Your task to perform on an android device: open app "YouTube Kids" Image 0: 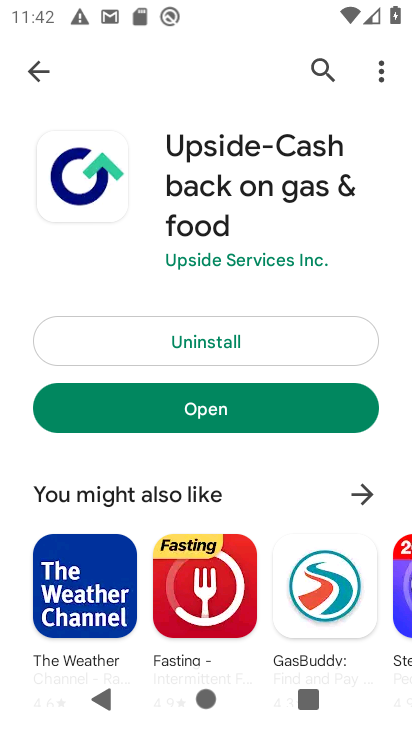
Step 0: drag from (213, 575) to (218, 315)
Your task to perform on an android device: open app "YouTube Kids" Image 1: 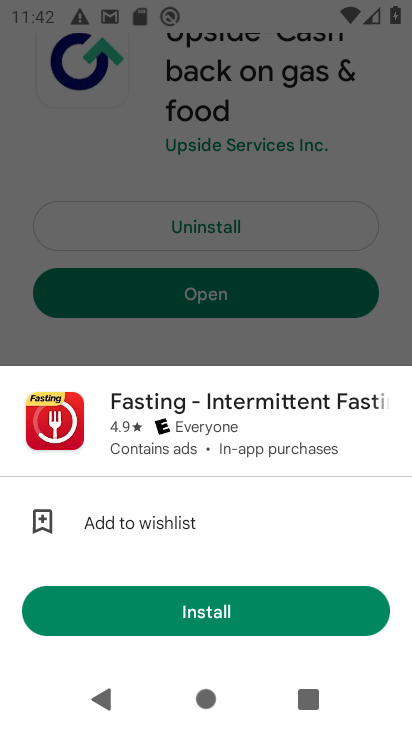
Step 1: press home button
Your task to perform on an android device: open app "YouTube Kids" Image 2: 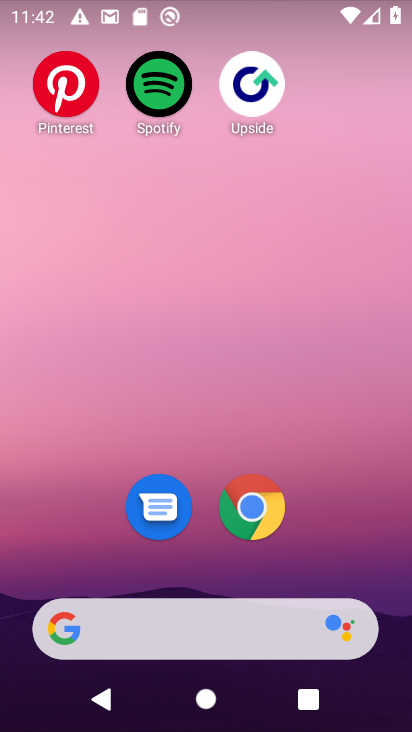
Step 2: drag from (143, 365) to (172, 19)
Your task to perform on an android device: open app "YouTube Kids" Image 3: 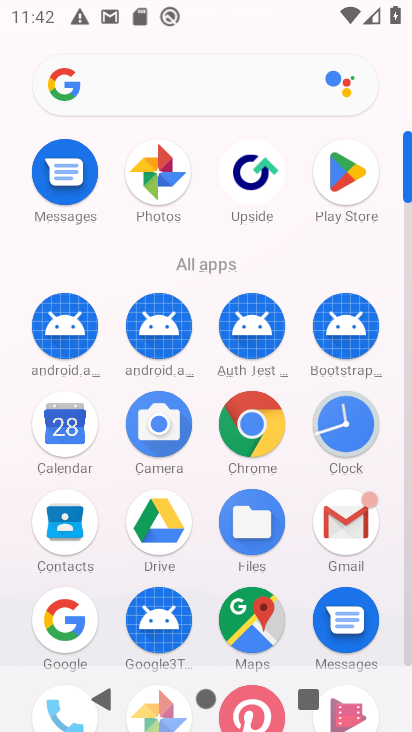
Step 3: click (354, 193)
Your task to perform on an android device: open app "YouTube Kids" Image 4: 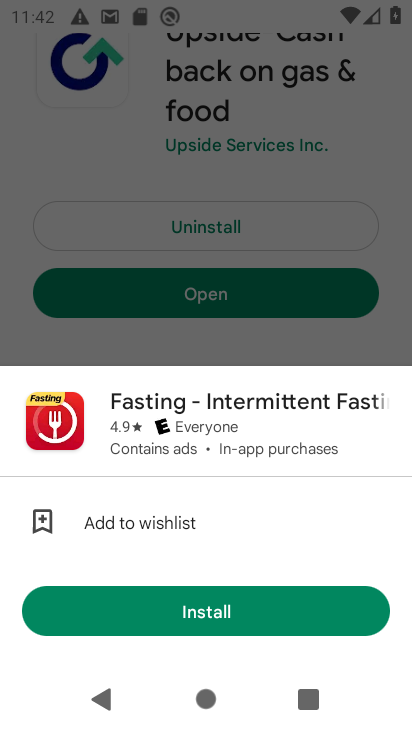
Step 4: press back button
Your task to perform on an android device: open app "YouTube Kids" Image 5: 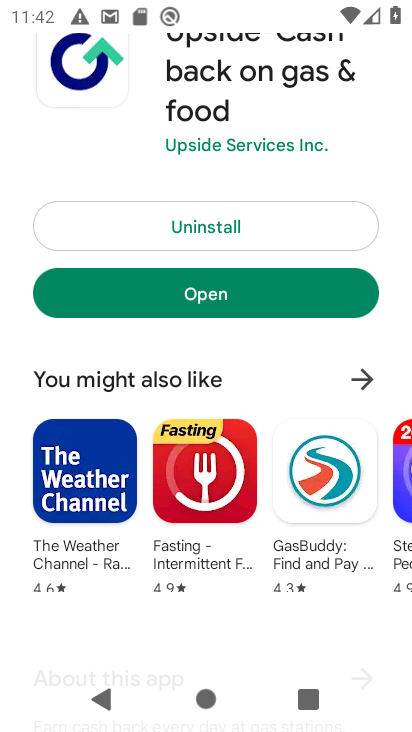
Step 5: drag from (151, 113) to (151, 526)
Your task to perform on an android device: open app "YouTube Kids" Image 6: 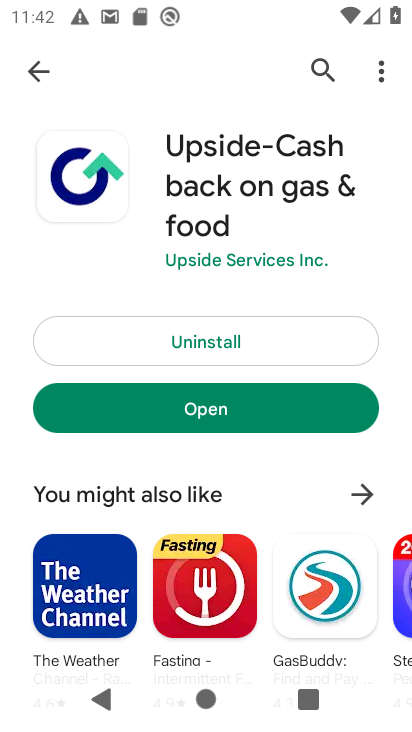
Step 6: click (31, 60)
Your task to perform on an android device: open app "YouTube Kids" Image 7: 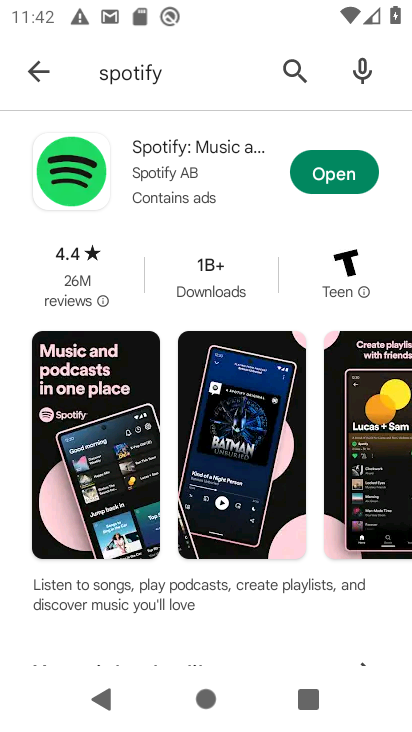
Step 7: click (156, 85)
Your task to perform on an android device: open app "YouTube Kids" Image 8: 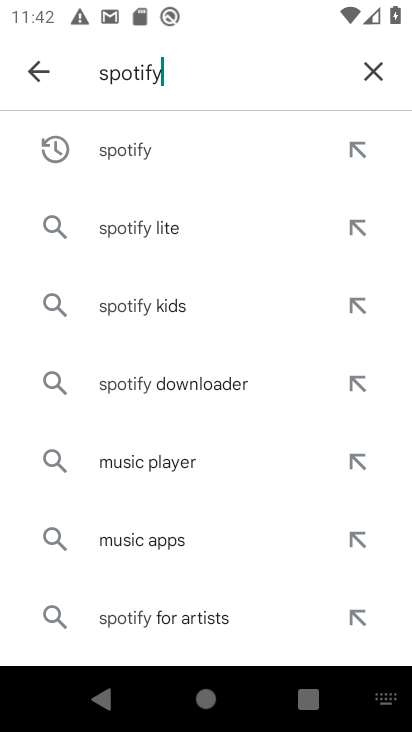
Step 8: click (366, 68)
Your task to perform on an android device: open app "YouTube Kids" Image 9: 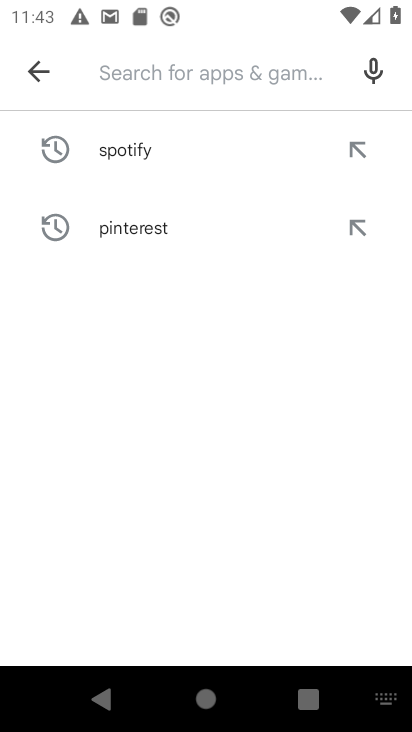
Step 9: type "Youtube kids"
Your task to perform on an android device: open app "YouTube Kids" Image 10: 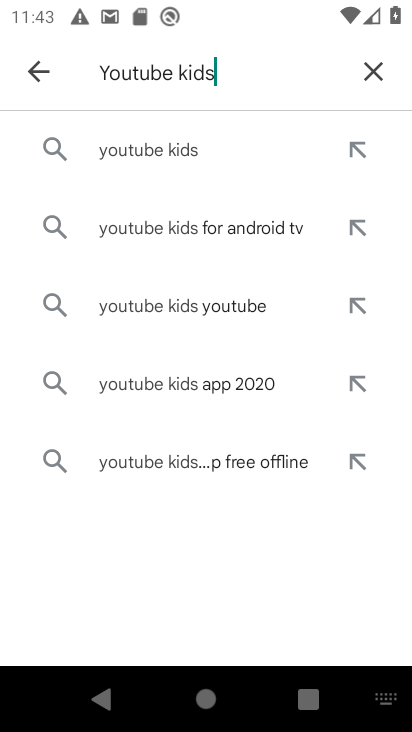
Step 10: click (74, 149)
Your task to perform on an android device: open app "YouTube Kids" Image 11: 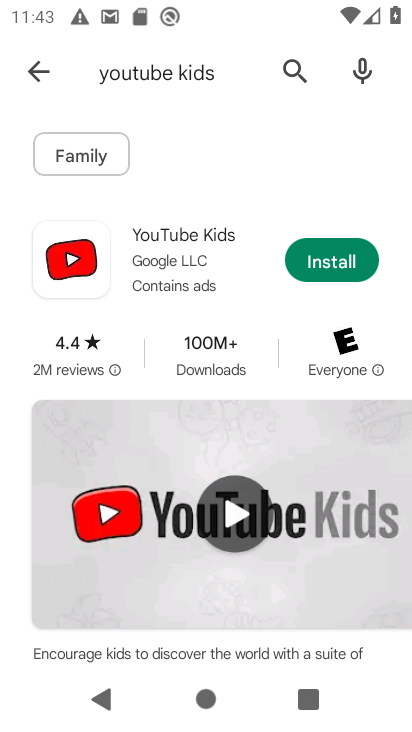
Step 11: click (333, 263)
Your task to perform on an android device: open app "YouTube Kids" Image 12: 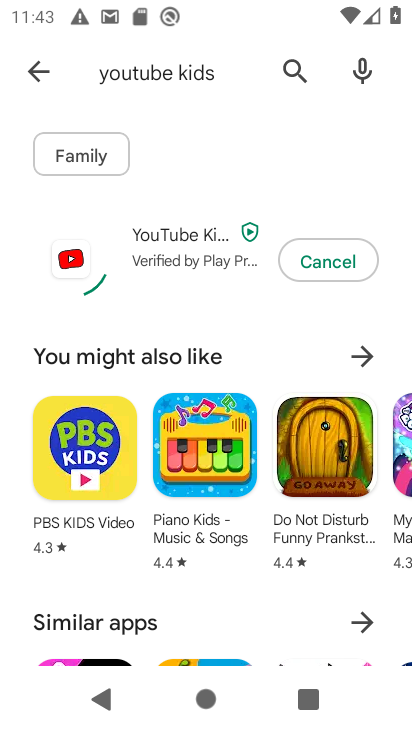
Step 12: click (333, 263)
Your task to perform on an android device: open app "YouTube Kids" Image 13: 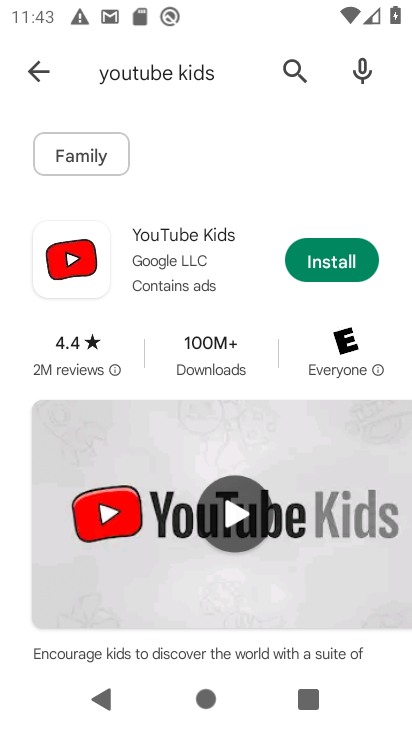
Step 13: task complete